Your task to perform on an android device: allow notifications from all sites in the chrome app Image 0: 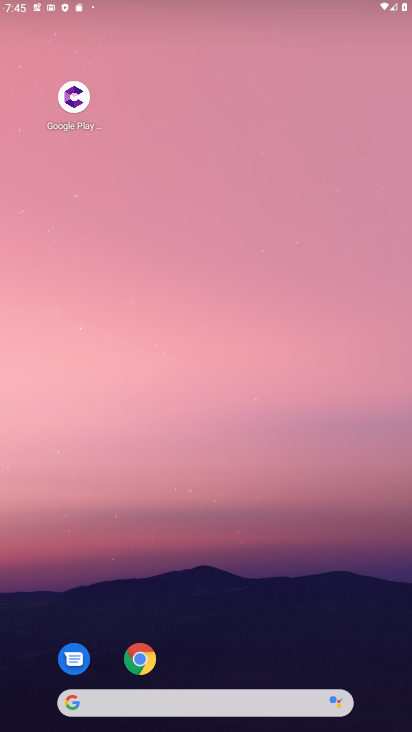
Step 0: drag from (200, 670) to (178, 205)
Your task to perform on an android device: allow notifications from all sites in the chrome app Image 1: 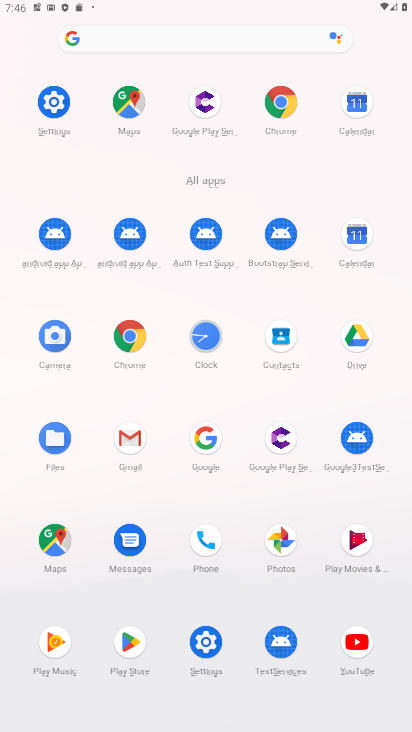
Step 1: click (126, 329)
Your task to perform on an android device: allow notifications from all sites in the chrome app Image 2: 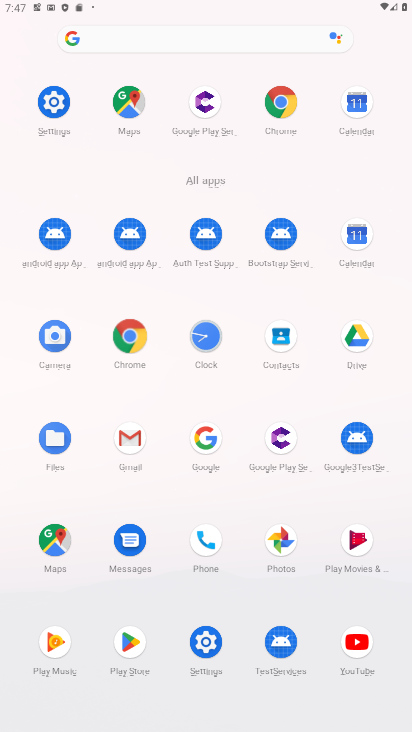
Step 2: click (133, 332)
Your task to perform on an android device: allow notifications from all sites in the chrome app Image 3: 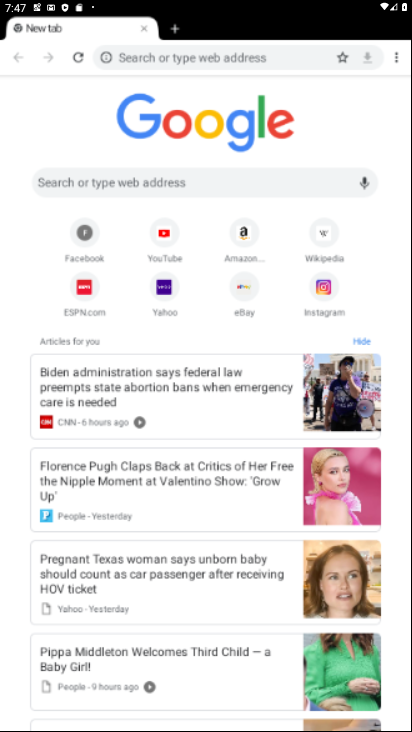
Step 3: click (134, 328)
Your task to perform on an android device: allow notifications from all sites in the chrome app Image 4: 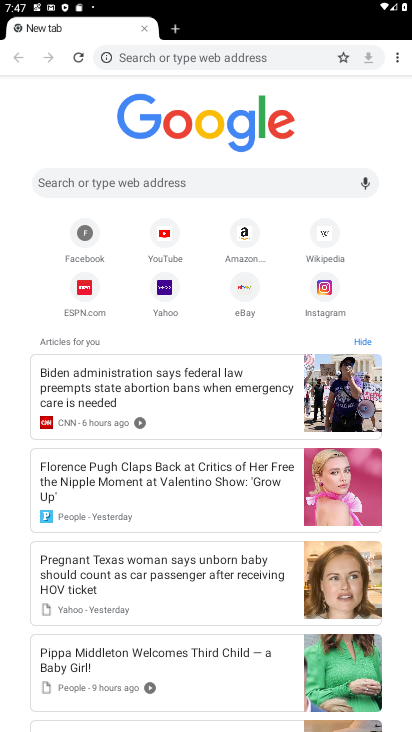
Step 4: drag from (393, 50) to (281, 258)
Your task to perform on an android device: allow notifications from all sites in the chrome app Image 5: 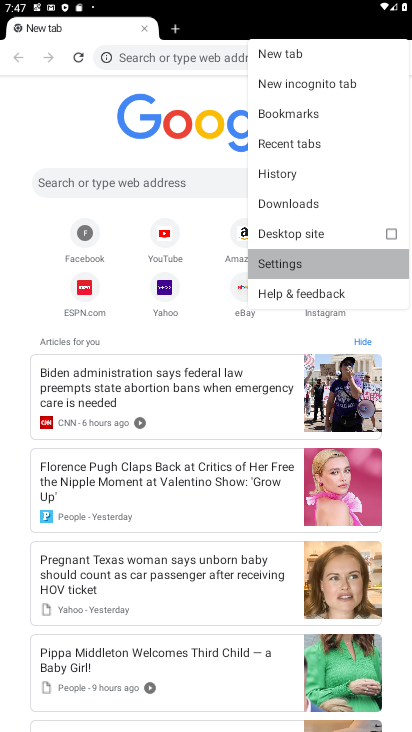
Step 5: click (278, 257)
Your task to perform on an android device: allow notifications from all sites in the chrome app Image 6: 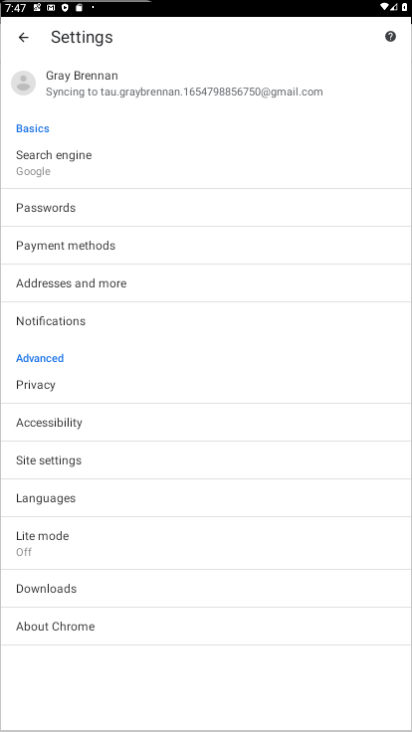
Step 6: click (278, 257)
Your task to perform on an android device: allow notifications from all sites in the chrome app Image 7: 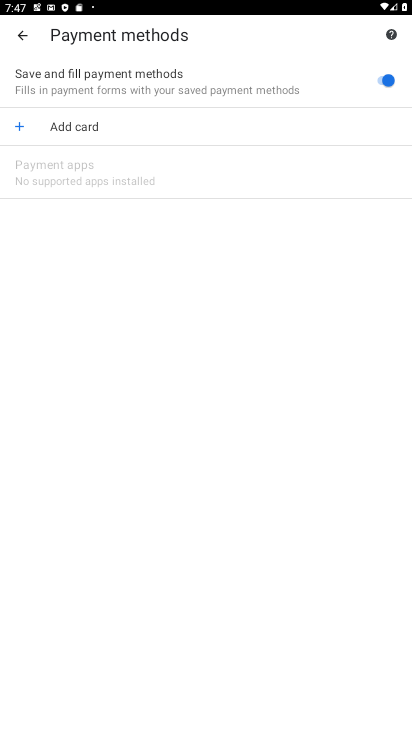
Step 7: click (22, 41)
Your task to perform on an android device: allow notifications from all sites in the chrome app Image 8: 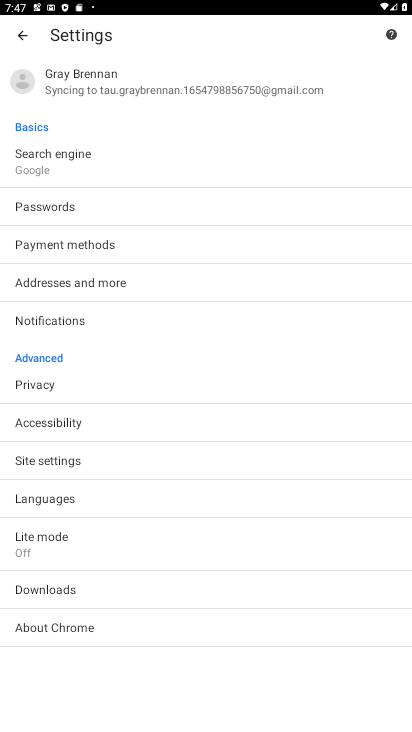
Step 8: click (36, 456)
Your task to perform on an android device: allow notifications from all sites in the chrome app Image 9: 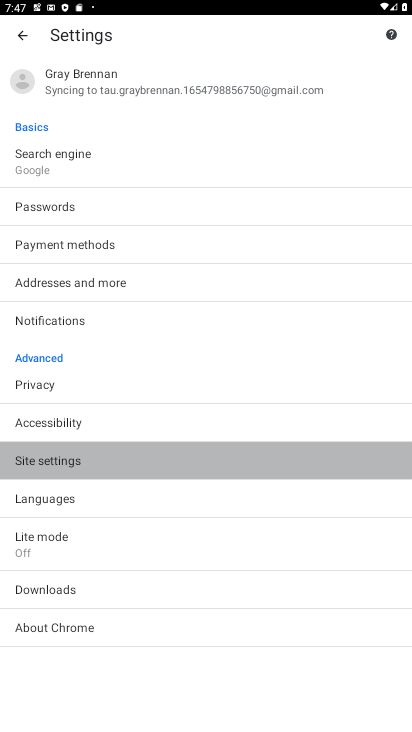
Step 9: click (38, 457)
Your task to perform on an android device: allow notifications from all sites in the chrome app Image 10: 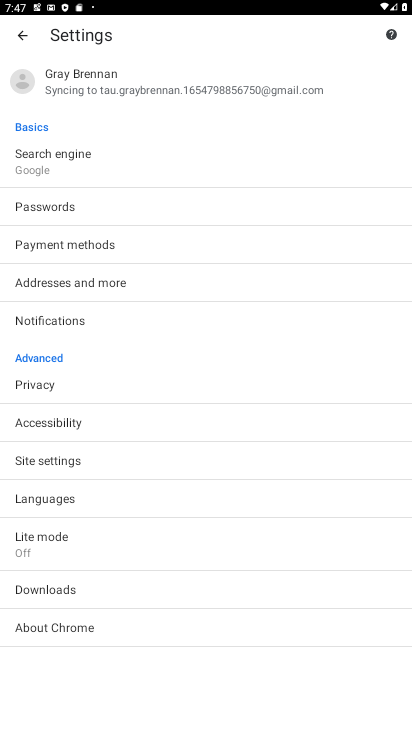
Step 10: click (41, 459)
Your task to perform on an android device: allow notifications from all sites in the chrome app Image 11: 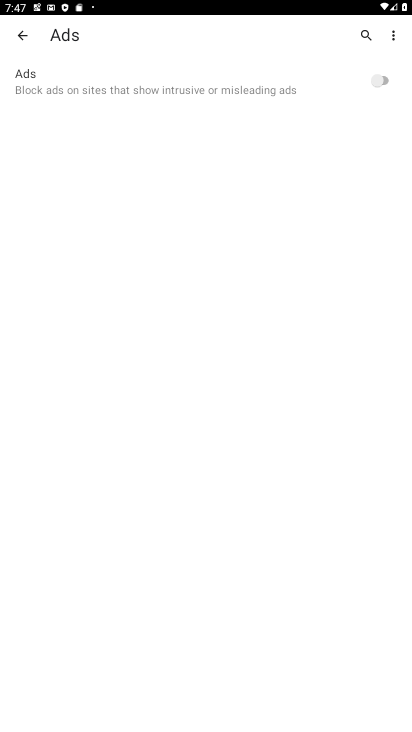
Step 11: click (49, 454)
Your task to perform on an android device: allow notifications from all sites in the chrome app Image 12: 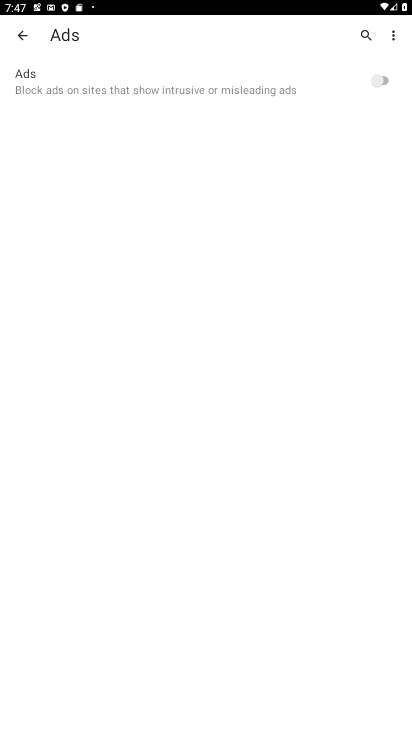
Step 12: click (17, 31)
Your task to perform on an android device: allow notifications from all sites in the chrome app Image 13: 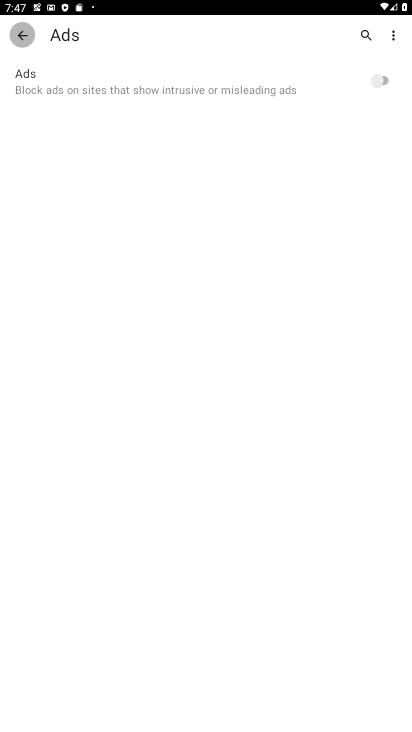
Step 13: click (21, 26)
Your task to perform on an android device: allow notifications from all sites in the chrome app Image 14: 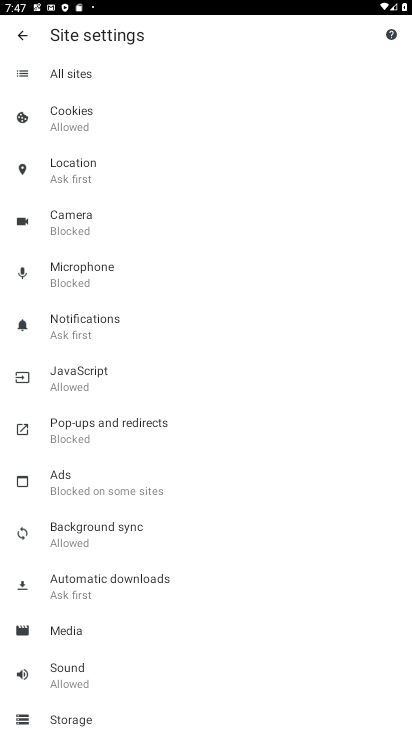
Step 14: click (71, 76)
Your task to perform on an android device: allow notifications from all sites in the chrome app Image 15: 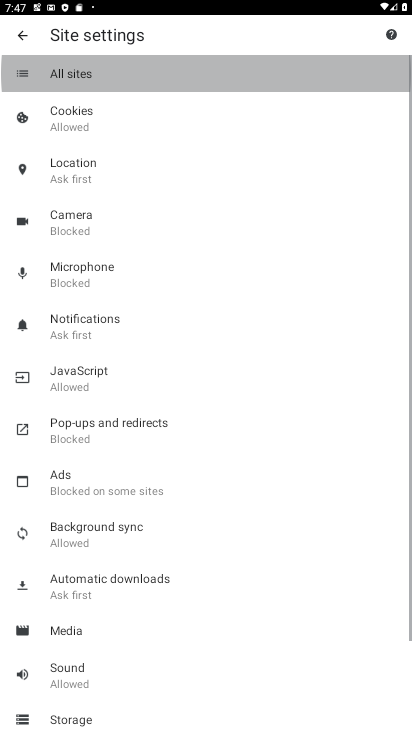
Step 15: click (77, 75)
Your task to perform on an android device: allow notifications from all sites in the chrome app Image 16: 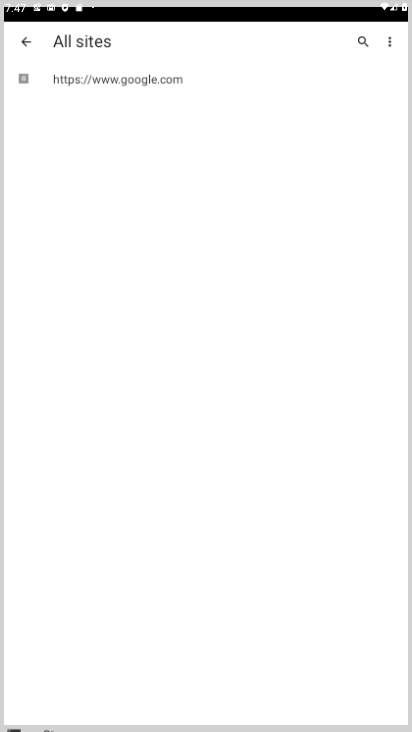
Step 16: click (80, 76)
Your task to perform on an android device: allow notifications from all sites in the chrome app Image 17: 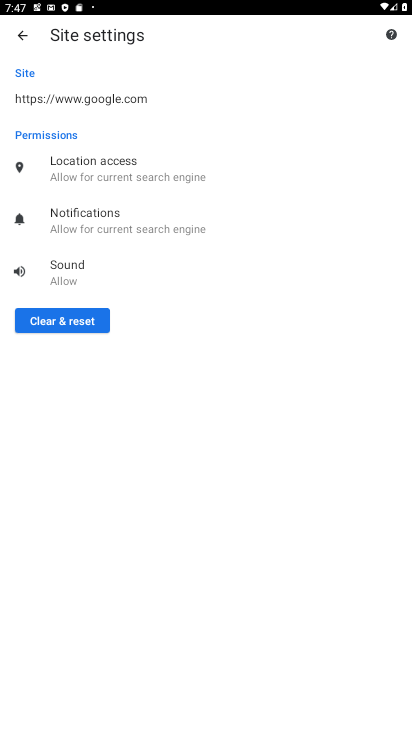
Step 17: click (18, 31)
Your task to perform on an android device: allow notifications from all sites in the chrome app Image 18: 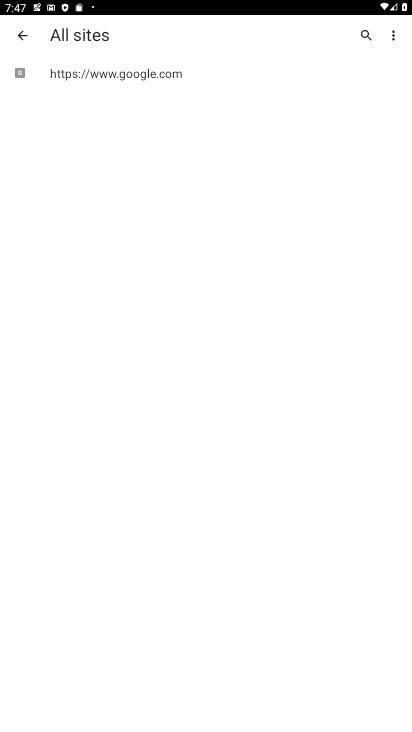
Step 18: task complete